Your task to perform on an android device: toggle sleep mode Image 0: 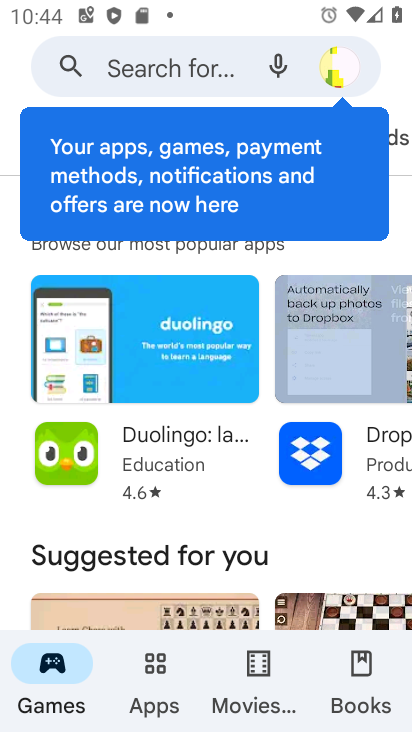
Step 0: press home button
Your task to perform on an android device: toggle sleep mode Image 1: 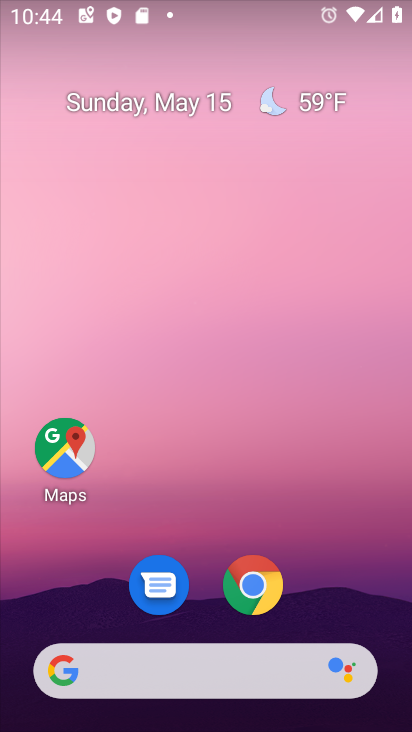
Step 1: drag from (224, 505) to (223, 74)
Your task to perform on an android device: toggle sleep mode Image 2: 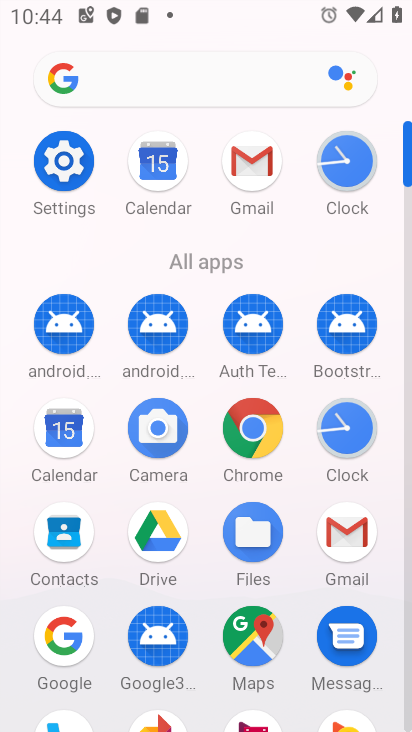
Step 2: click (63, 169)
Your task to perform on an android device: toggle sleep mode Image 3: 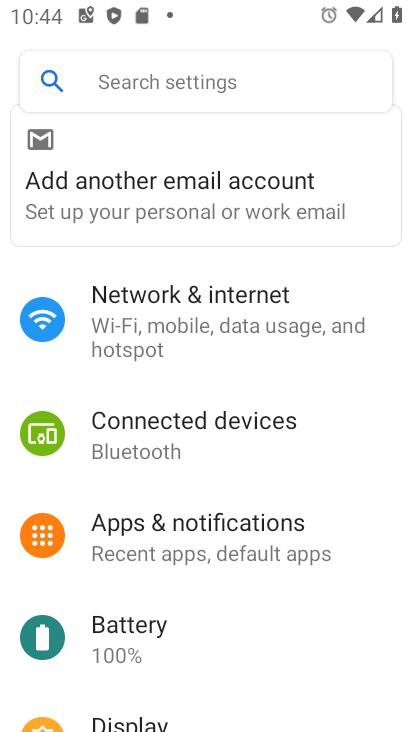
Step 3: drag from (221, 594) to (216, 210)
Your task to perform on an android device: toggle sleep mode Image 4: 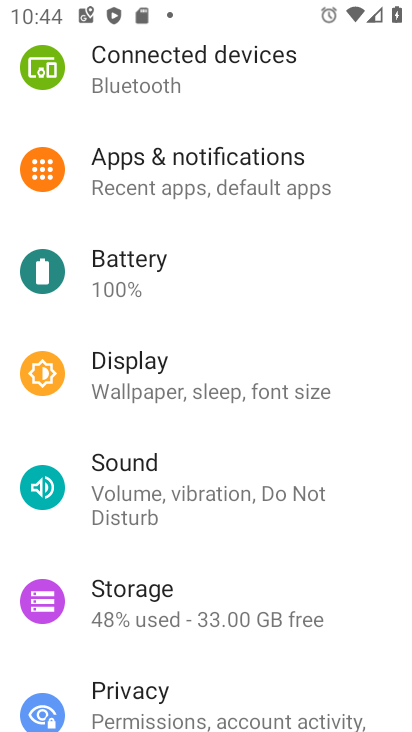
Step 4: click (202, 377)
Your task to perform on an android device: toggle sleep mode Image 5: 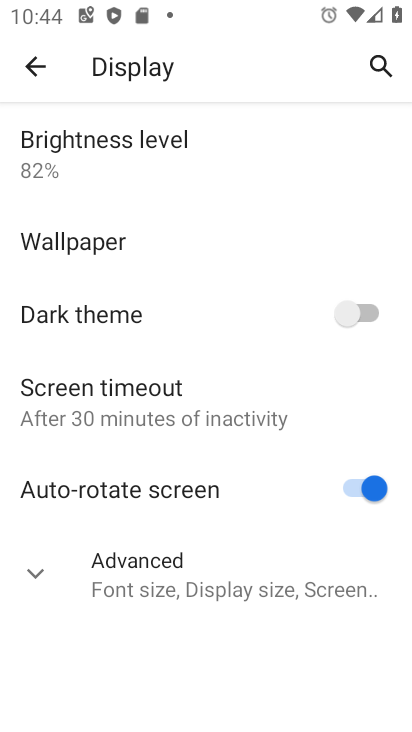
Step 5: click (41, 567)
Your task to perform on an android device: toggle sleep mode Image 6: 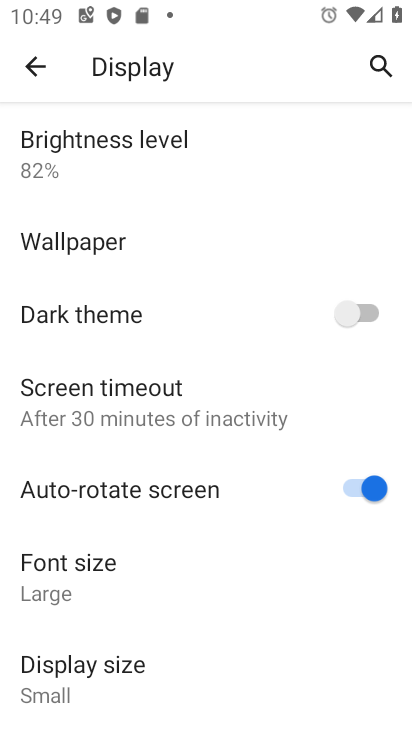
Step 6: task complete